Your task to perform on an android device: toggle priority inbox in the gmail app Image 0: 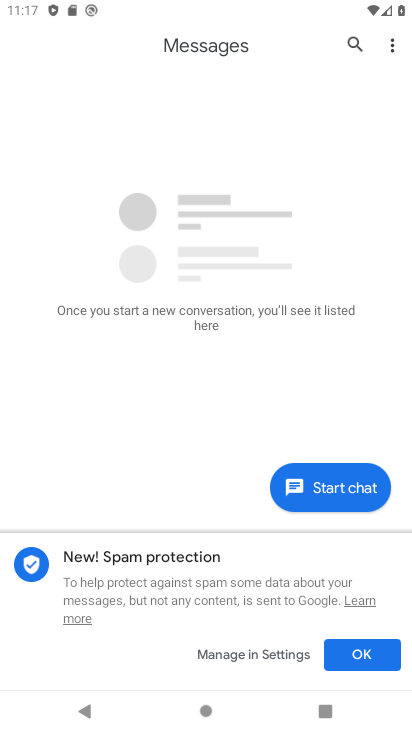
Step 0: press home button
Your task to perform on an android device: toggle priority inbox in the gmail app Image 1: 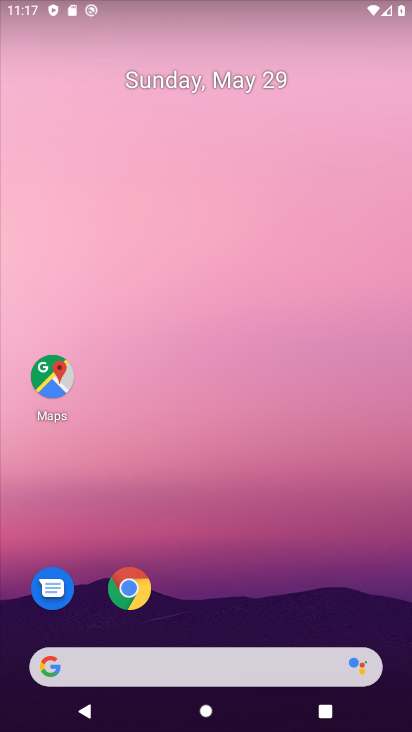
Step 1: drag from (285, 585) to (304, 1)
Your task to perform on an android device: toggle priority inbox in the gmail app Image 2: 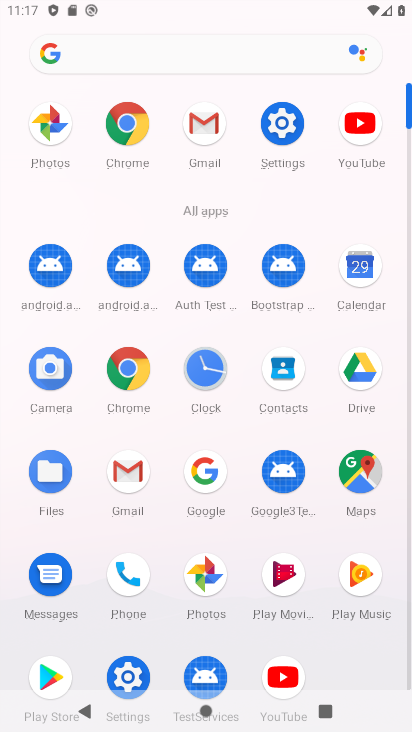
Step 2: click (199, 153)
Your task to perform on an android device: toggle priority inbox in the gmail app Image 3: 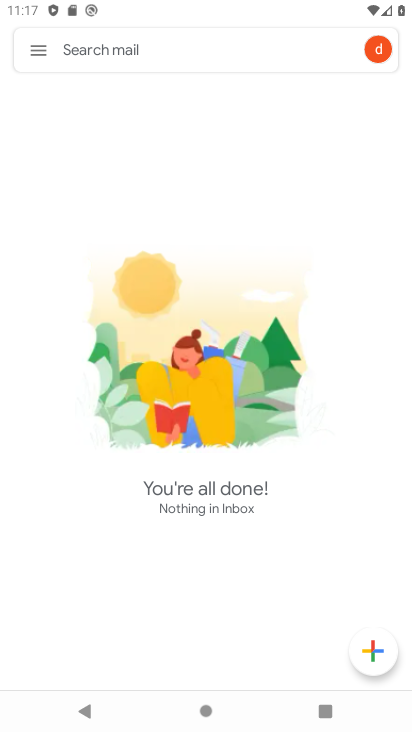
Step 3: click (47, 49)
Your task to perform on an android device: toggle priority inbox in the gmail app Image 4: 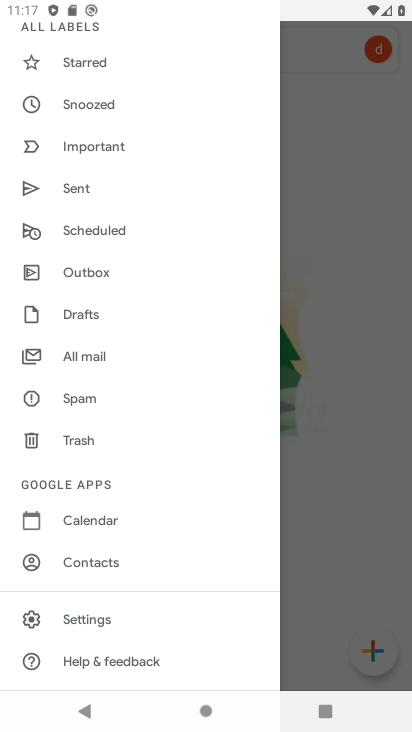
Step 4: drag from (98, 559) to (145, 120)
Your task to perform on an android device: toggle priority inbox in the gmail app Image 5: 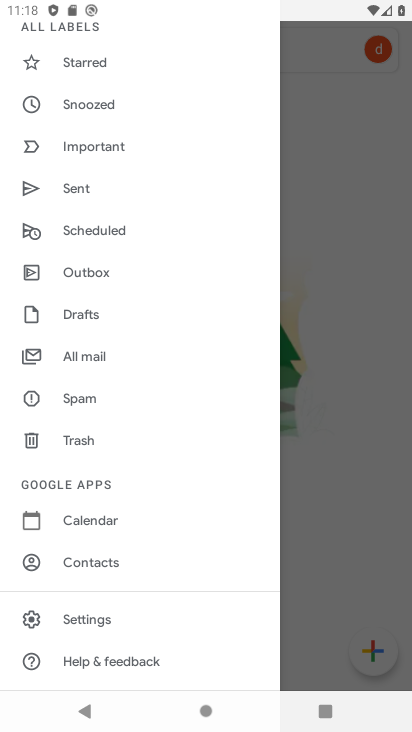
Step 5: click (89, 612)
Your task to perform on an android device: toggle priority inbox in the gmail app Image 6: 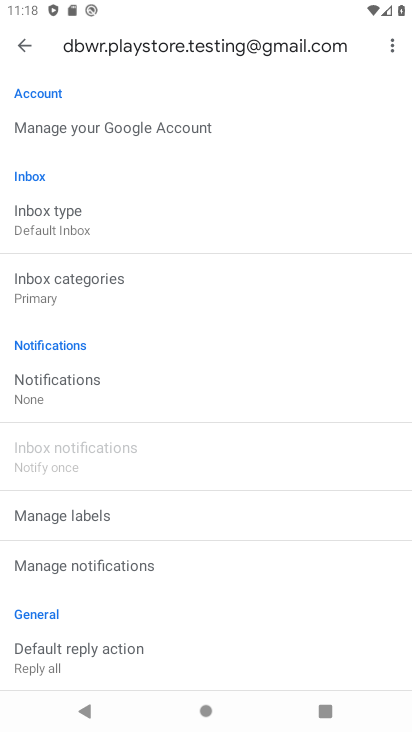
Step 6: click (59, 224)
Your task to perform on an android device: toggle priority inbox in the gmail app Image 7: 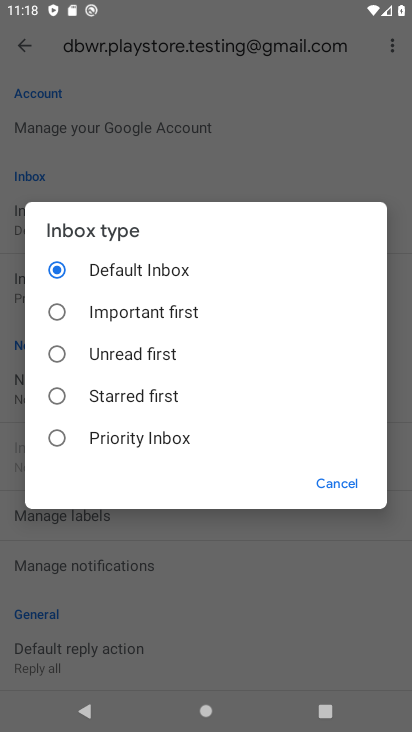
Step 7: click (53, 440)
Your task to perform on an android device: toggle priority inbox in the gmail app Image 8: 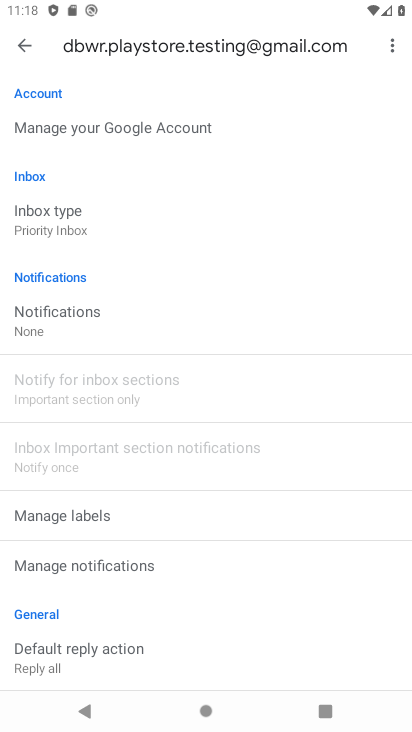
Step 8: task complete